Your task to perform on an android device: Go to Amazon Image 0: 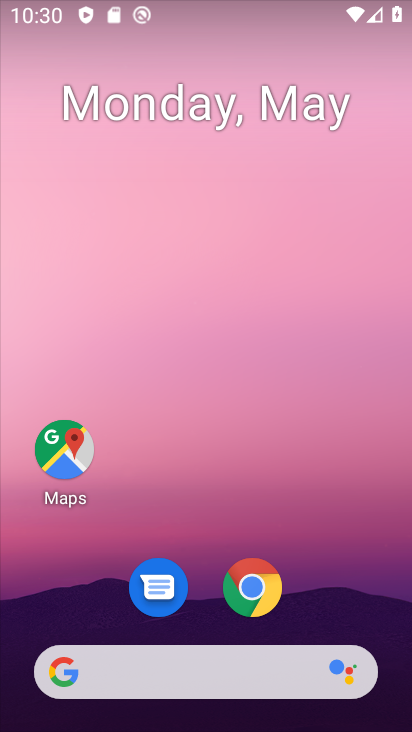
Step 0: click (252, 569)
Your task to perform on an android device: Go to Amazon Image 1: 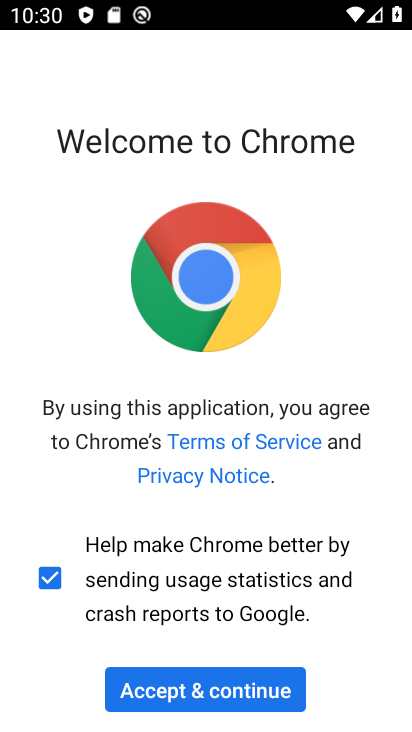
Step 1: click (200, 669)
Your task to perform on an android device: Go to Amazon Image 2: 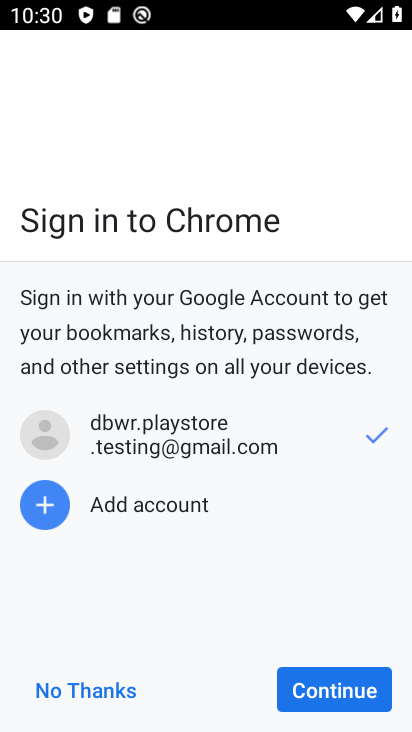
Step 2: click (315, 698)
Your task to perform on an android device: Go to Amazon Image 3: 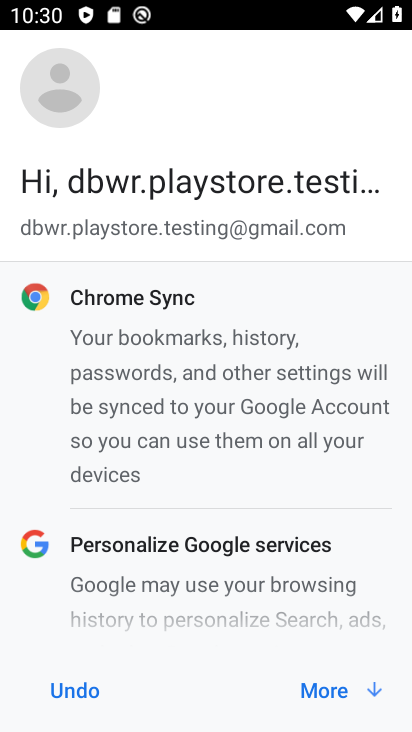
Step 3: click (343, 679)
Your task to perform on an android device: Go to Amazon Image 4: 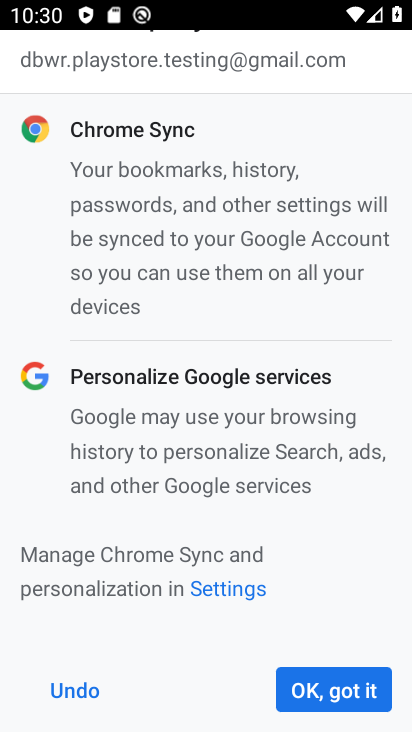
Step 4: click (343, 679)
Your task to perform on an android device: Go to Amazon Image 5: 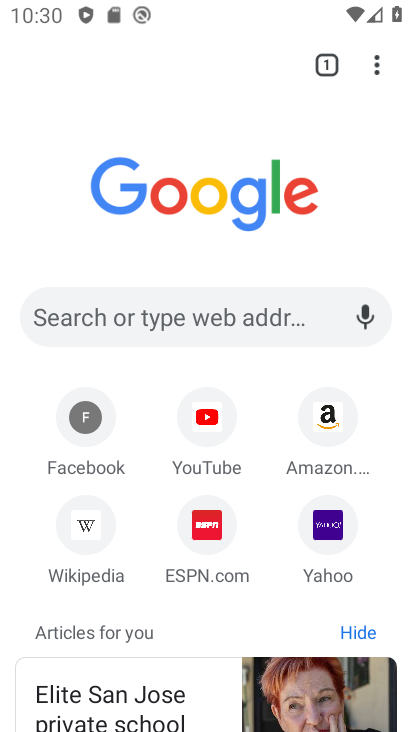
Step 5: click (325, 421)
Your task to perform on an android device: Go to Amazon Image 6: 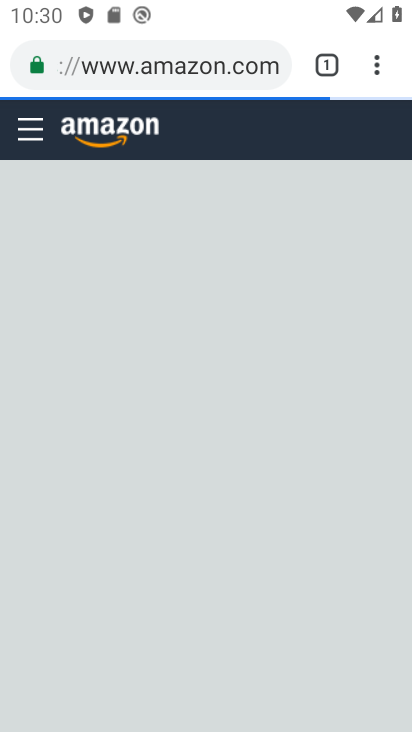
Step 6: task complete